Your task to perform on an android device: toggle pop-ups in chrome Image 0: 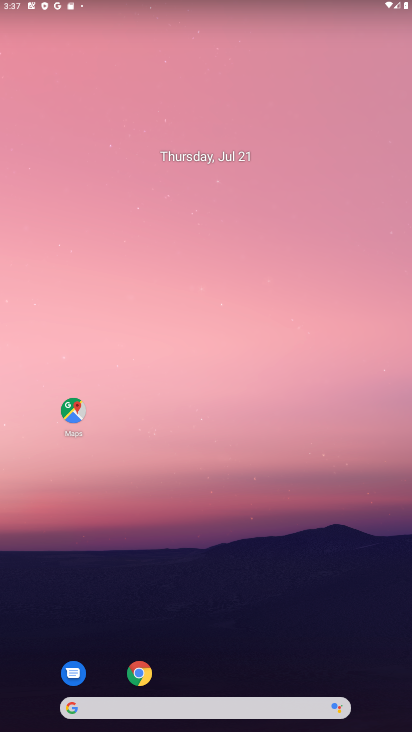
Step 0: click (137, 677)
Your task to perform on an android device: toggle pop-ups in chrome Image 1: 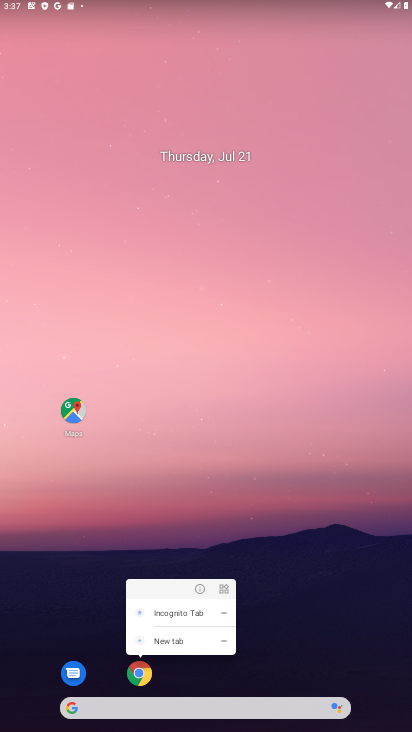
Step 1: click (137, 677)
Your task to perform on an android device: toggle pop-ups in chrome Image 2: 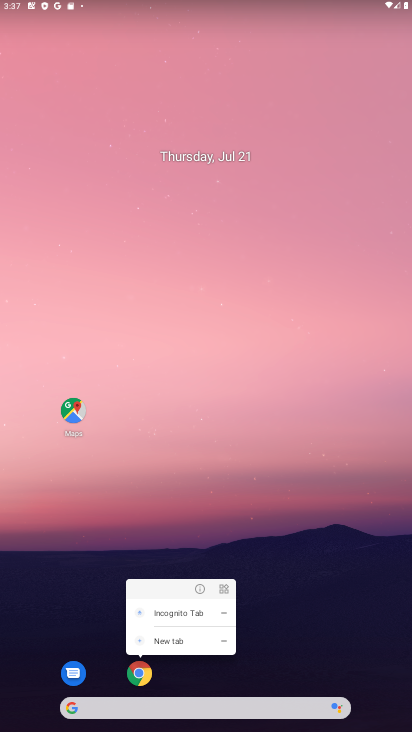
Step 2: click (138, 669)
Your task to perform on an android device: toggle pop-ups in chrome Image 3: 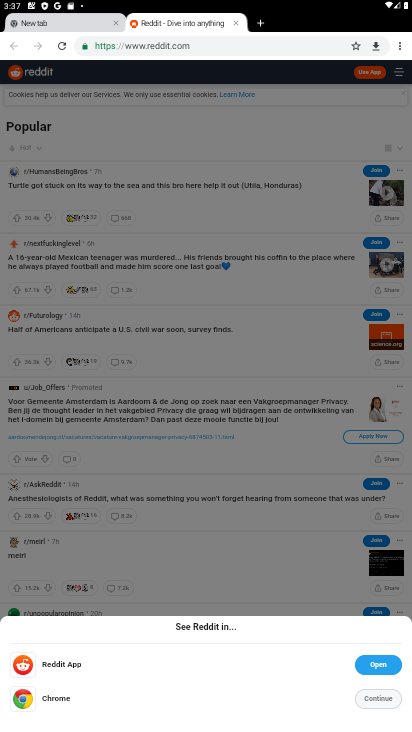
Step 3: click (142, 679)
Your task to perform on an android device: toggle pop-ups in chrome Image 4: 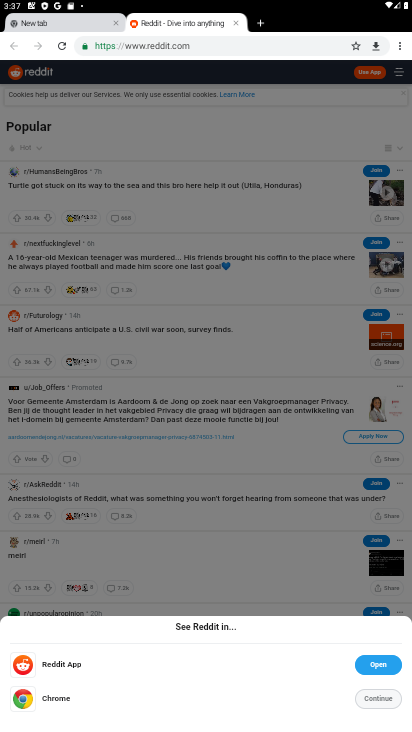
Step 4: click (398, 47)
Your task to perform on an android device: toggle pop-ups in chrome Image 5: 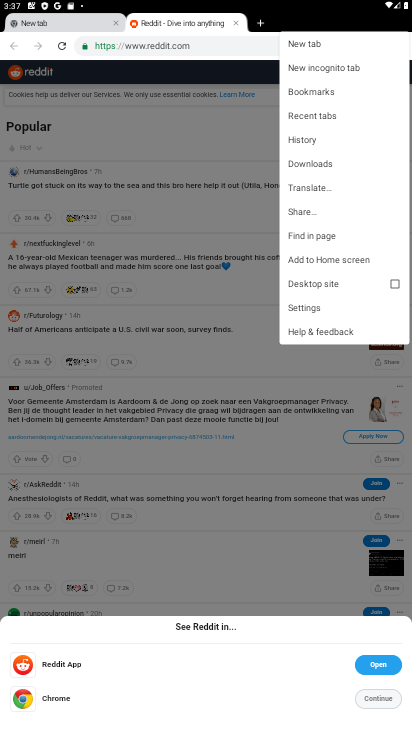
Step 5: click (318, 305)
Your task to perform on an android device: toggle pop-ups in chrome Image 6: 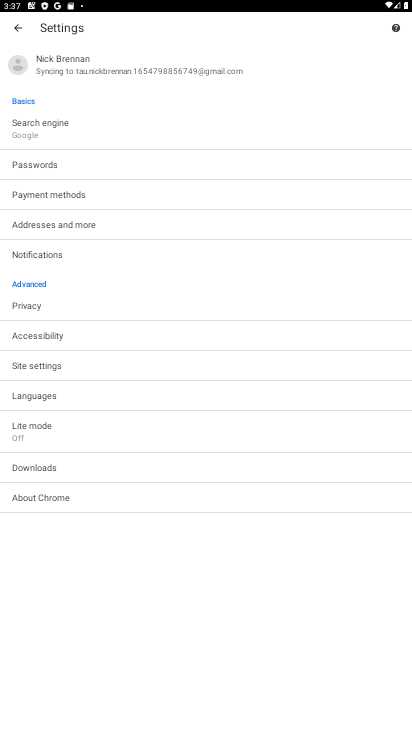
Step 6: click (35, 365)
Your task to perform on an android device: toggle pop-ups in chrome Image 7: 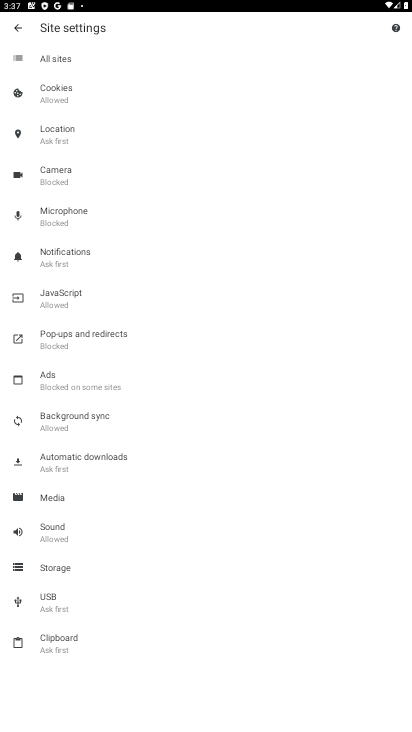
Step 7: click (113, 342)
Your task to perform on an android device: toggle pop-ups in chrome Image 8: 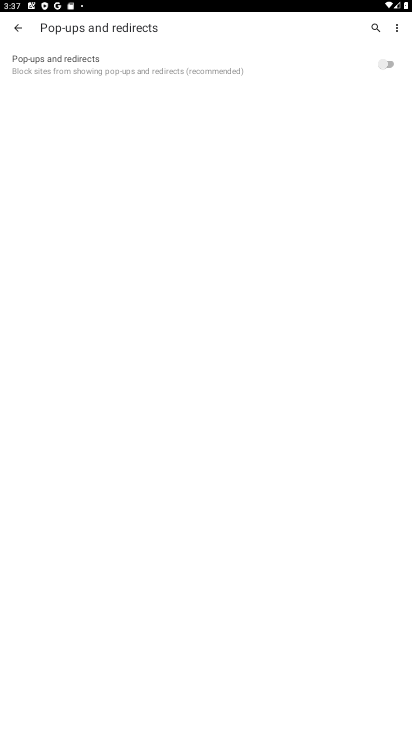
Step 8: click (382, 66)
Your task to perform on an android device: toggle pop-ups in chrome Image 9: 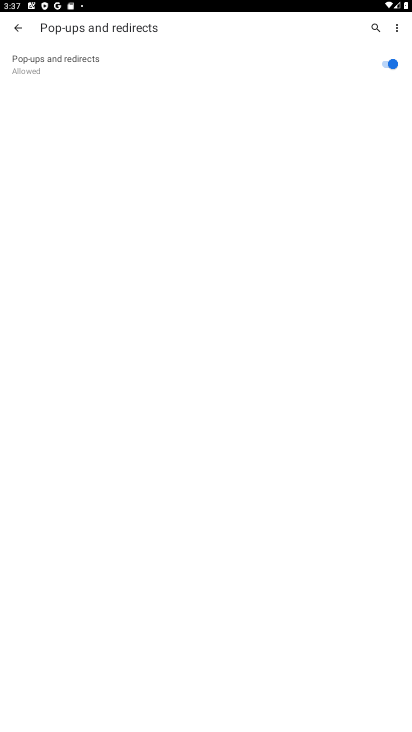
Step 9: task complete